Your task to perform on an android device: create a new album in the google photos Image 0: 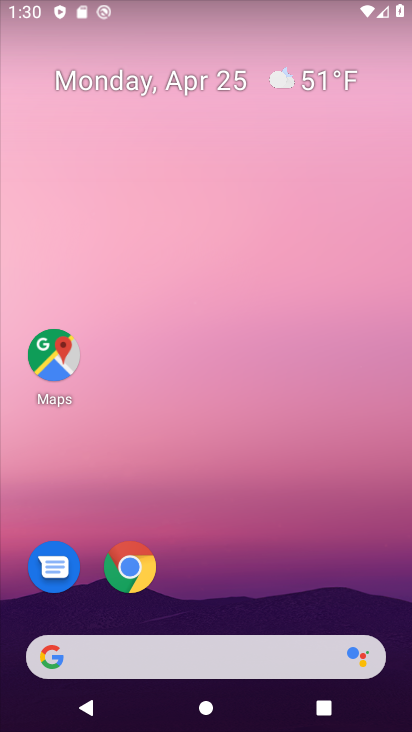
Step 0: drag from (231, 548) to (141, 31)
Your task to perform on an android device: create a new album in the google photos Image 1: 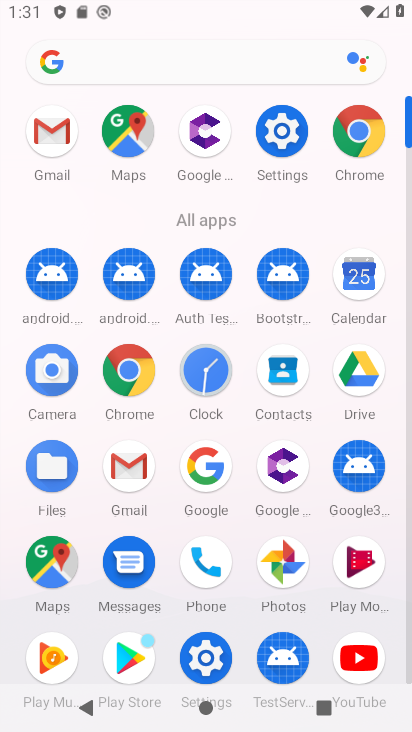
Step 1: drag from (166, 228) to (143, 28)
Your task to perform on an android device: create a new album in the google photos Image 2: 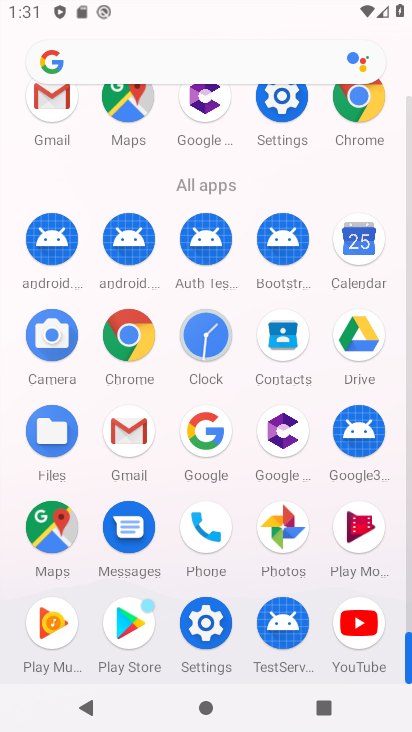
Step 2: click (292, 549)
Your task to perform on an android device: create a new album in the google photos Image 3: 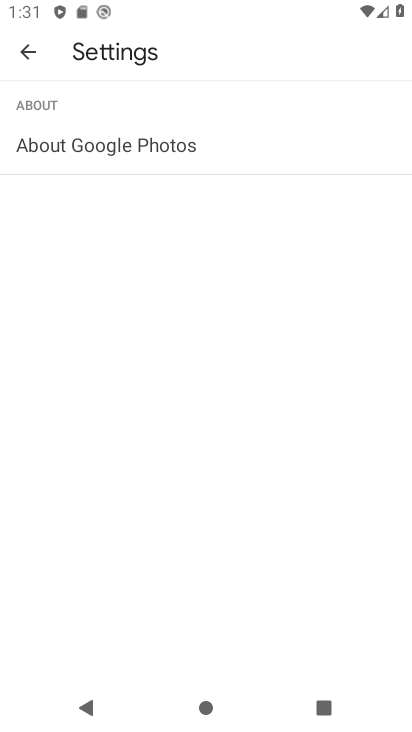
Step 3: press home button
Your task to perform on an android device: create a new album in the google photos Image 4: 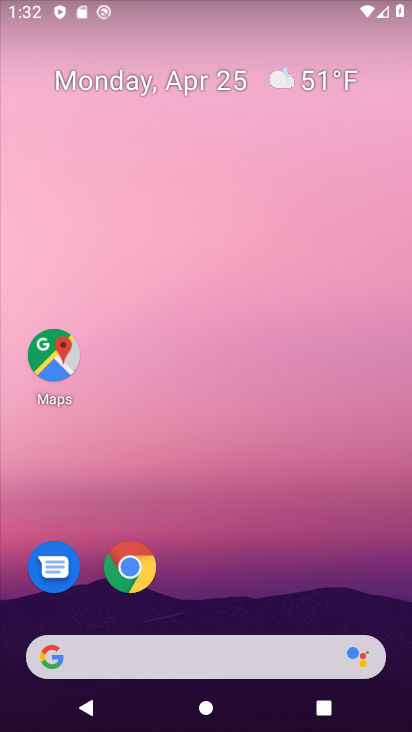
Step 4: drag from (271, 571) to (184, 15)
Your task to perform on an android device: create a new album in the google photos Image 5: 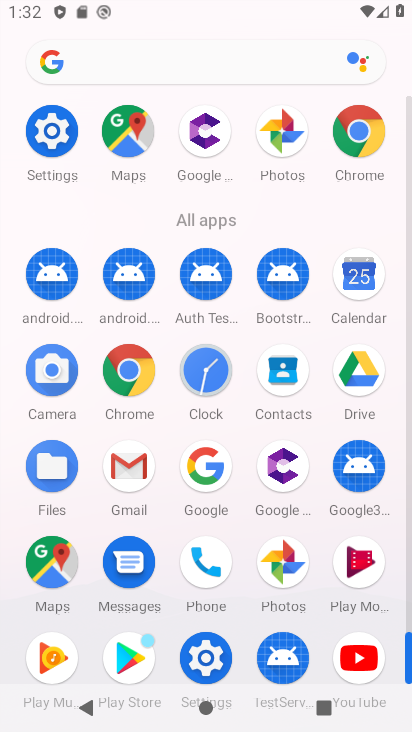
Step 5: click (271, 562)
Your task to perform on an android device: create a new album in the google photos Image 6: 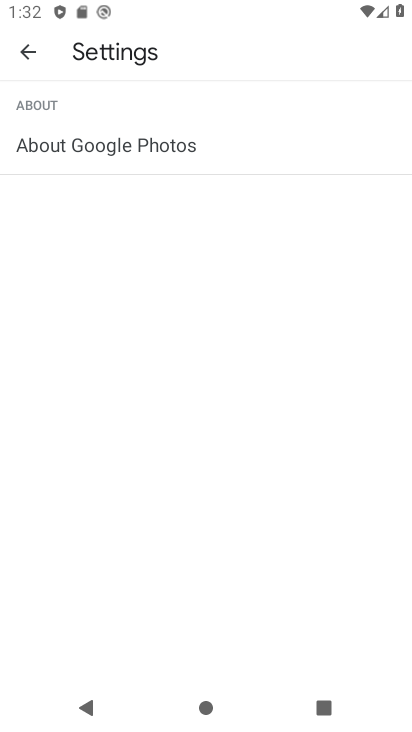
Step 6: drag from (193, 510) to (134, 138)
Your task to perform on an android device: create a new album in the google photos Image 7: 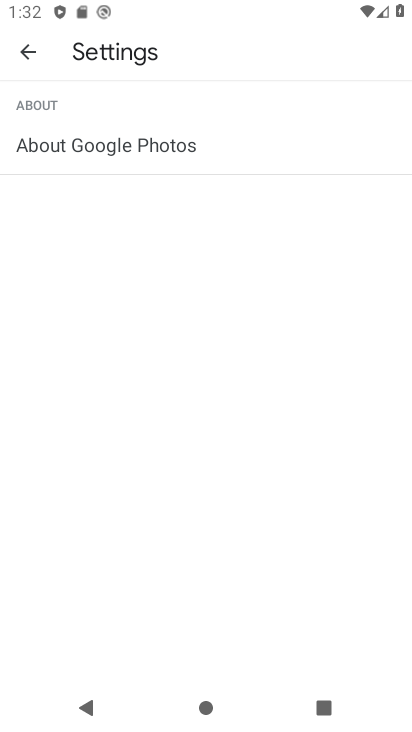
Step 7: click (24, 49)
Your task to perform on an android device: create a new album in the google photos Image 8: 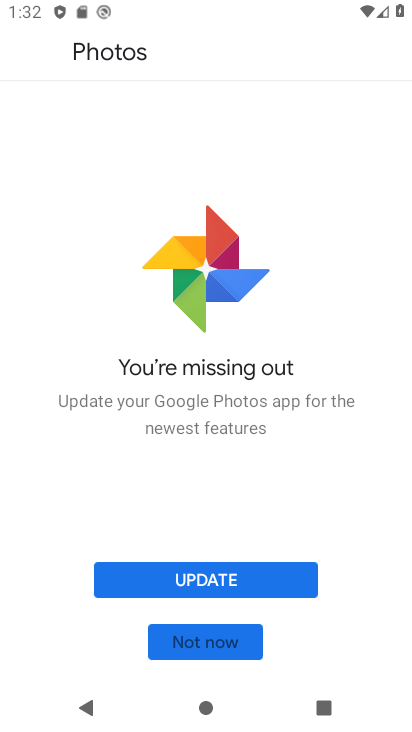
Step 8: click (227, 637)
Your task to perform on an android device: create a new album in the google photos Image 9: 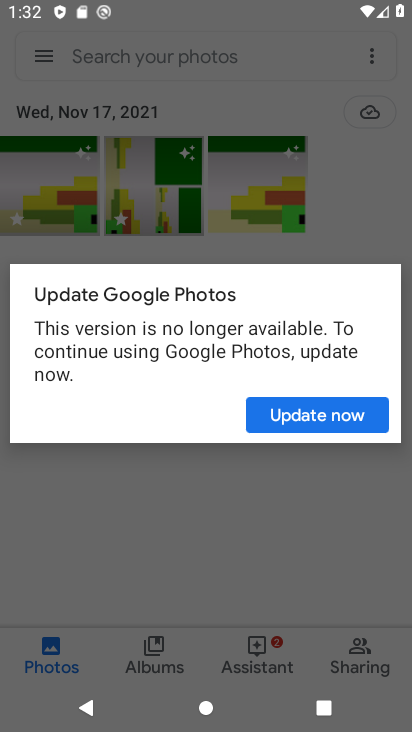
Step 9: click (363, 410)
Your task to perform on an android device: create a new album in the google photos Image 10: 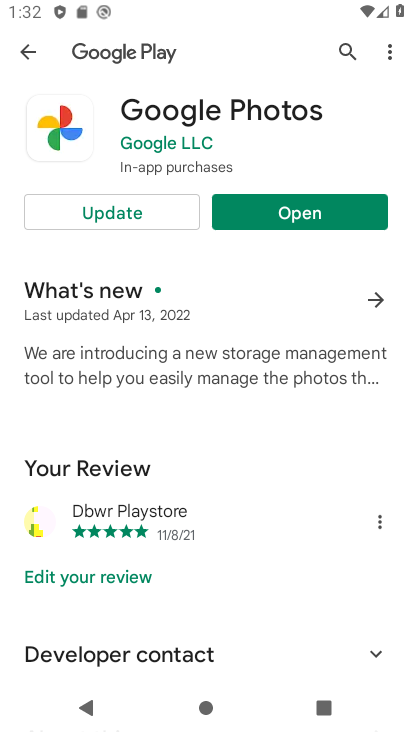
Step 10: click (246, 206)
Your task to perform on an android device: create a new album in the google photos Image 11: 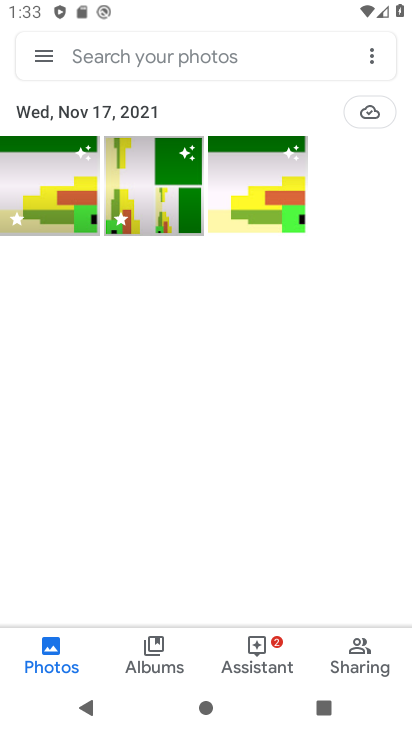
Step 11: click (46, 216)
Your task to perform on an android device: create a new album in the google photos Image 12: 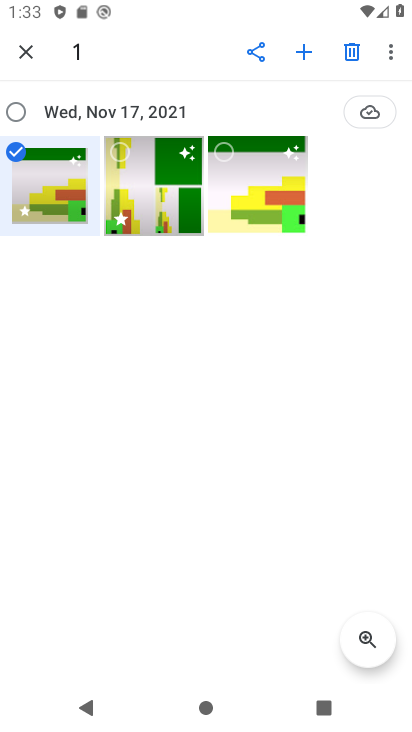
Step 12: click (308, 49)
Your task to perform on an android device: create a new album in the google photos Image 13: 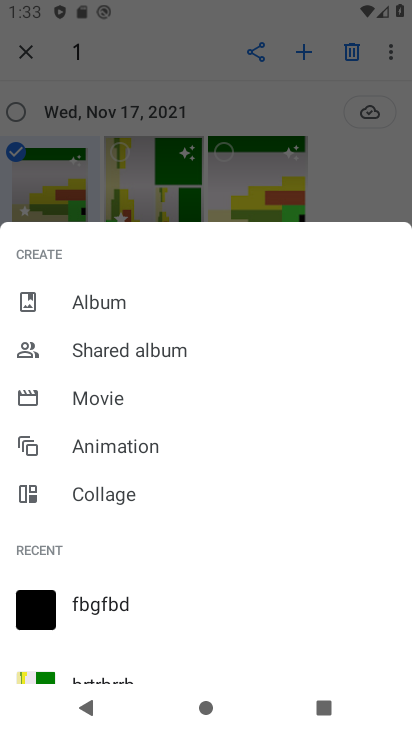
Step 13: click (140, 305)
Your task to perform on an android device: create a new album in the google photos Image 14: 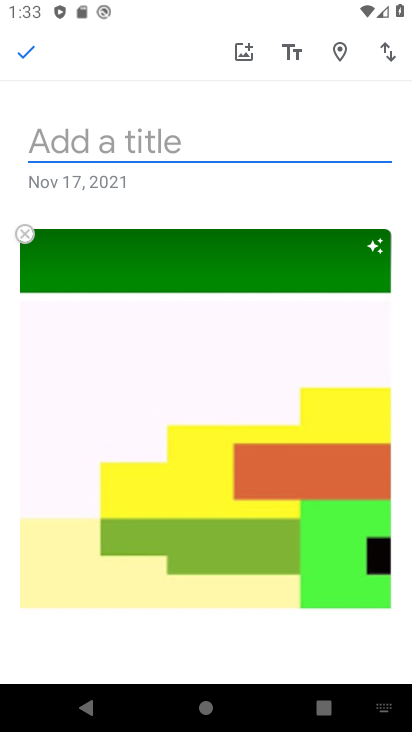
Step 14: click (229, 148)
Your task to perform on an android device: create a new album in the google photos Image 15: 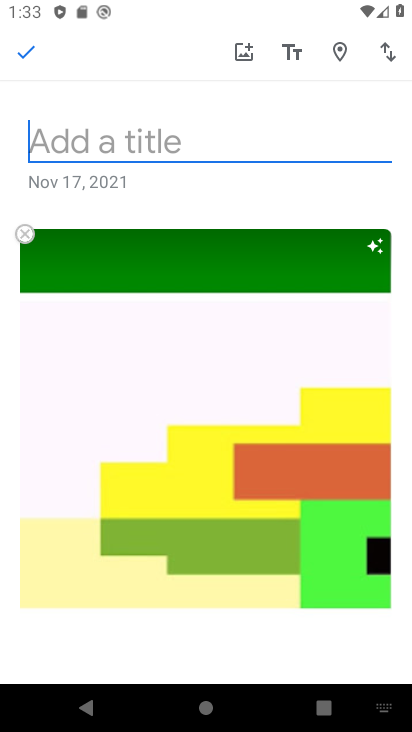
Step 15: type "hggcfhgchg"
Your task to perform on an android device: create a new album in the google photos Image 16: 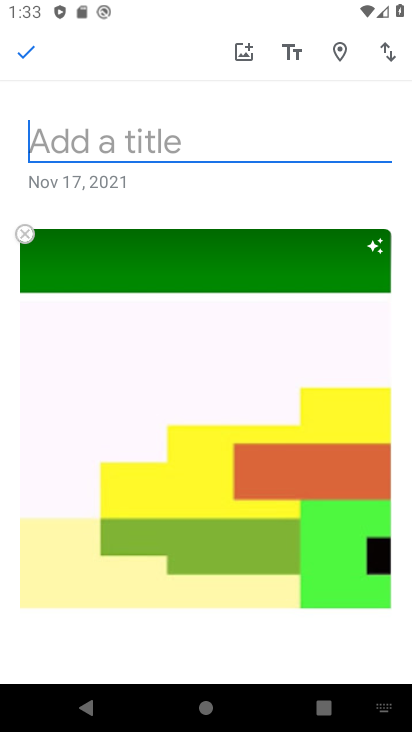
Step 16: click (38, 48)
Your task to perform on an android device: create a new album in the google photos Image 17: 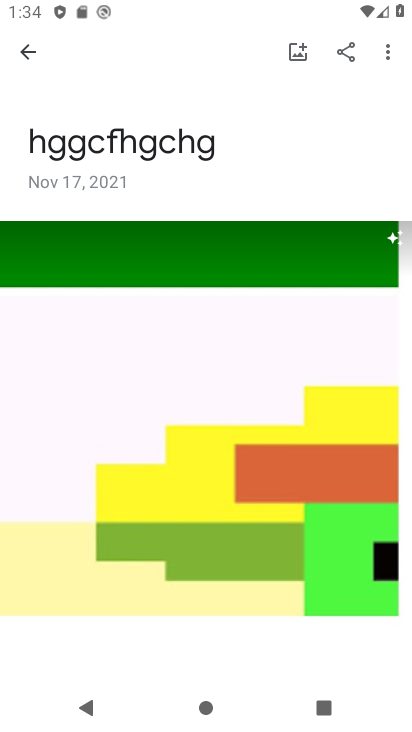
Step 17: task complete